Your task to perform on an android device: open app "PUBG MOBILE" Image 0: 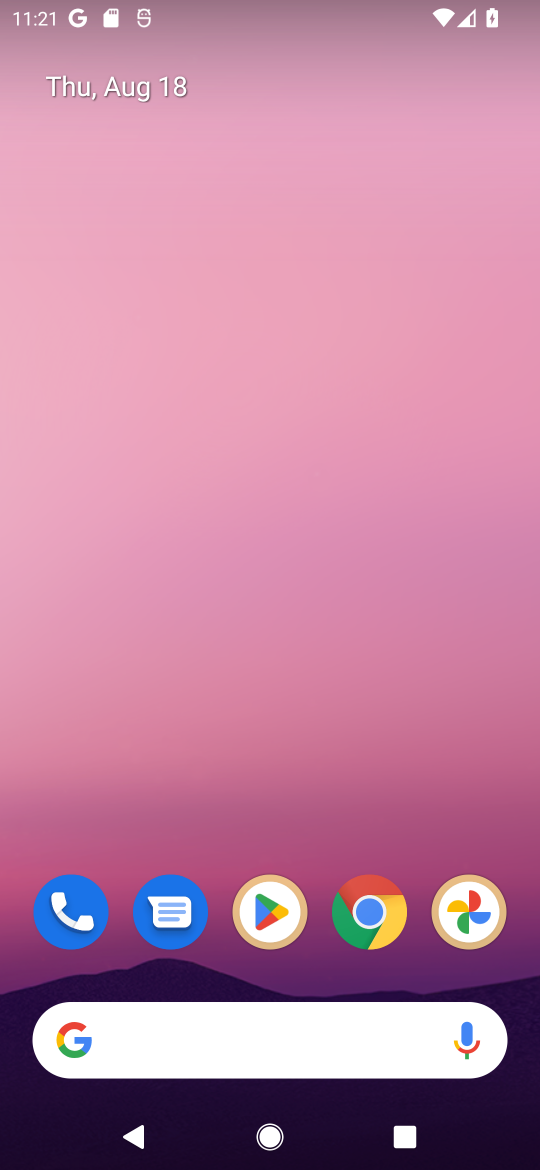
Step 0: click (287, 914)
Your task to perform on an android device: open app "PUBG MOBILE" Image 1: 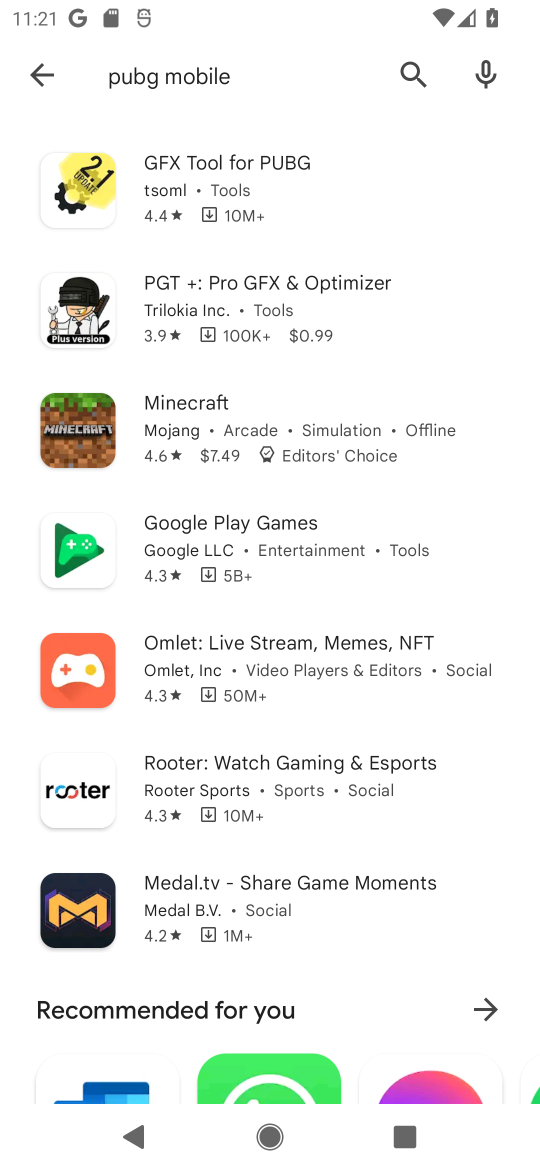
Step 1: click (405, 80)
Your task to perform on an android device: open app "PUBG MOBILE" Image 2: 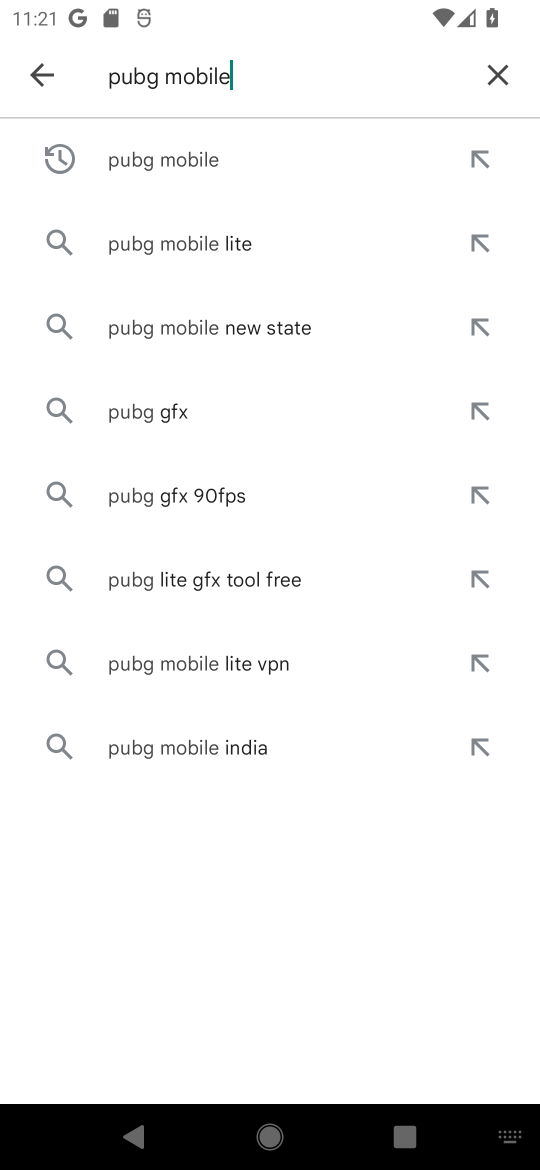
Step 2: click (488, 74)
Your task to perform on an android device: open app "PUBG MOBILE" Image 3: 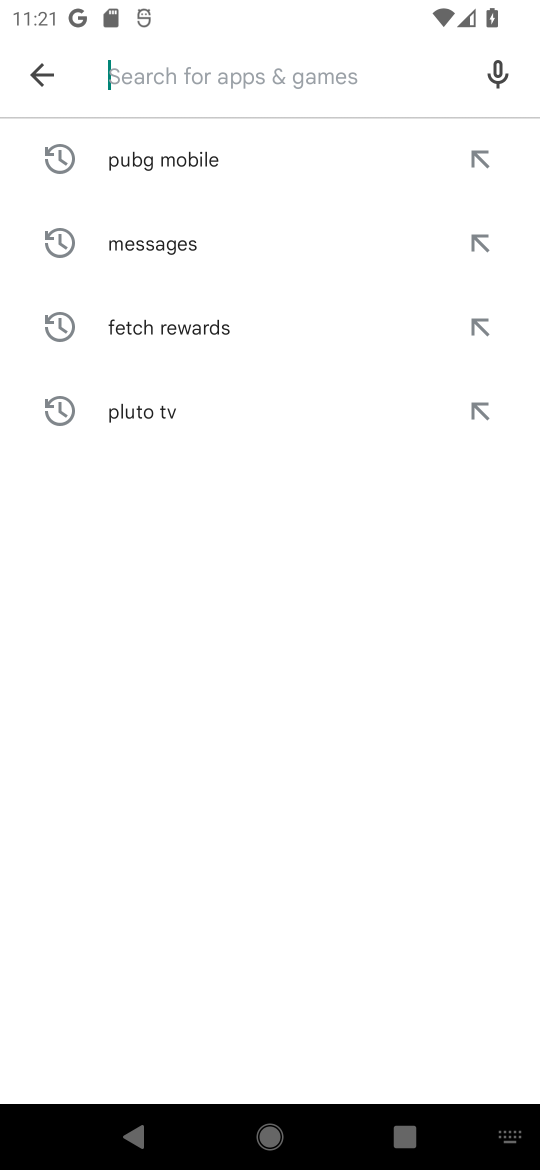
Step 3: click (136, 64)
Your task to perform on an android device: open app "PUBG MOBILE" Image 4: 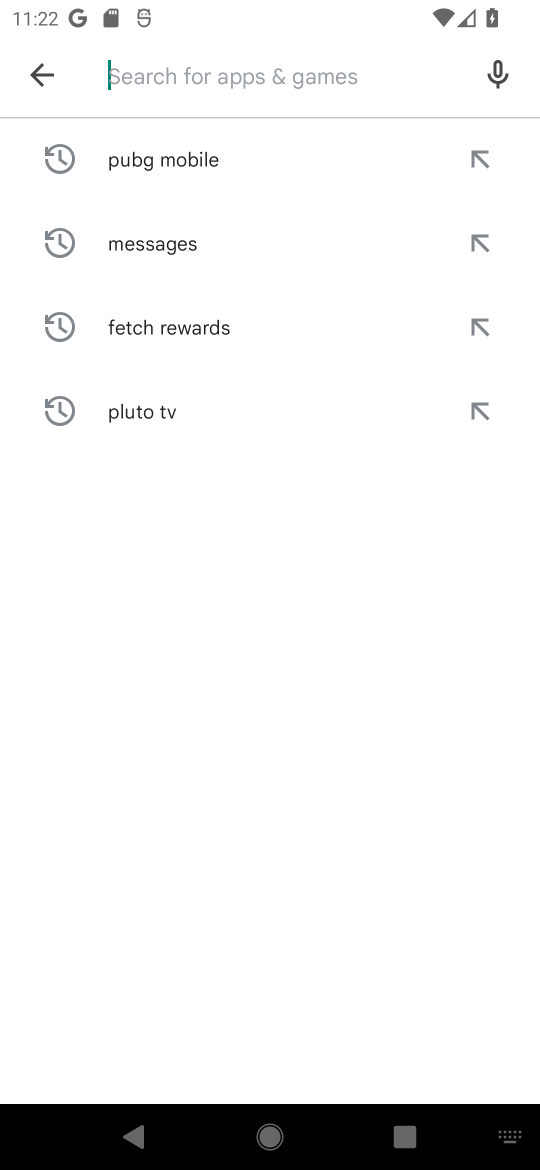
Step 4: type "PUBG MOBILE"
Your task to perform on an android device: open app "PUBG MOBILE" Image 5: 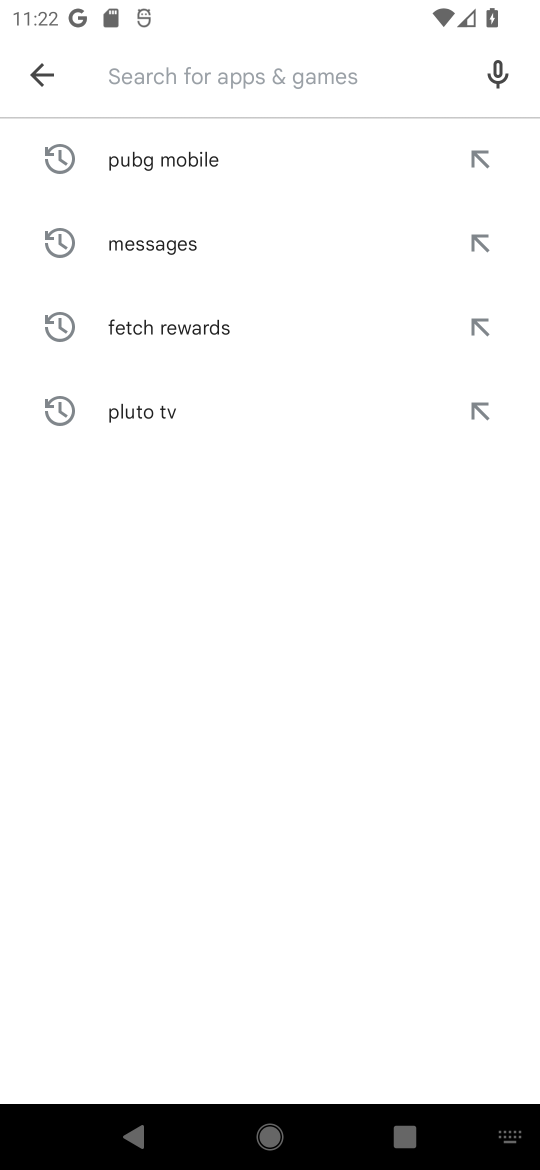
Step 5: click (185, 666)
Your task to perform on an android device: open app "PUBG MOBILE" Image 6: 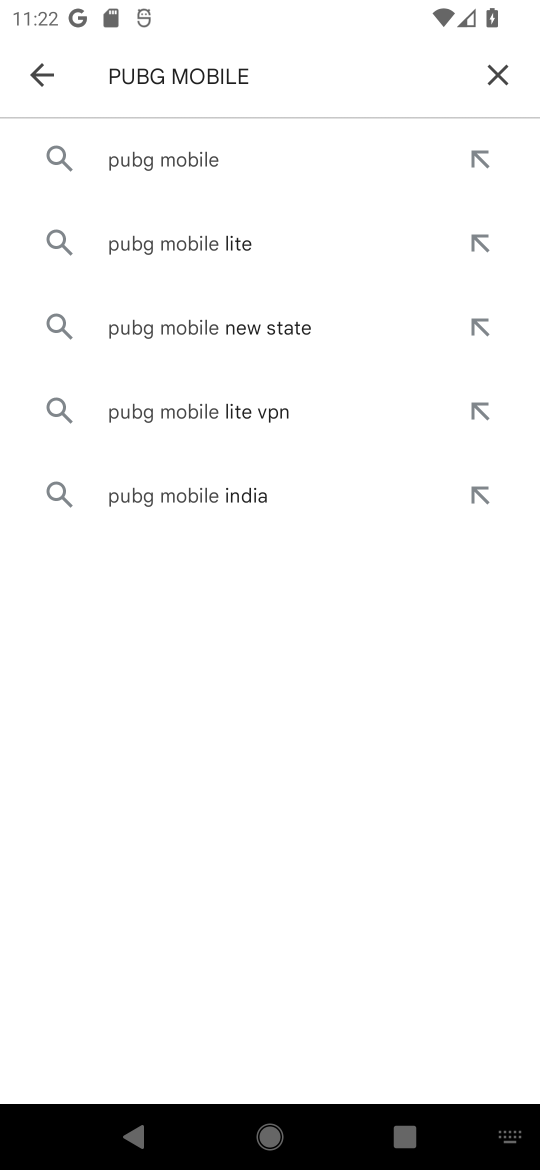
Step 6: click (177, 161)
Your task to perform on an android device: open app "PUBG MOBILE" Image 7: 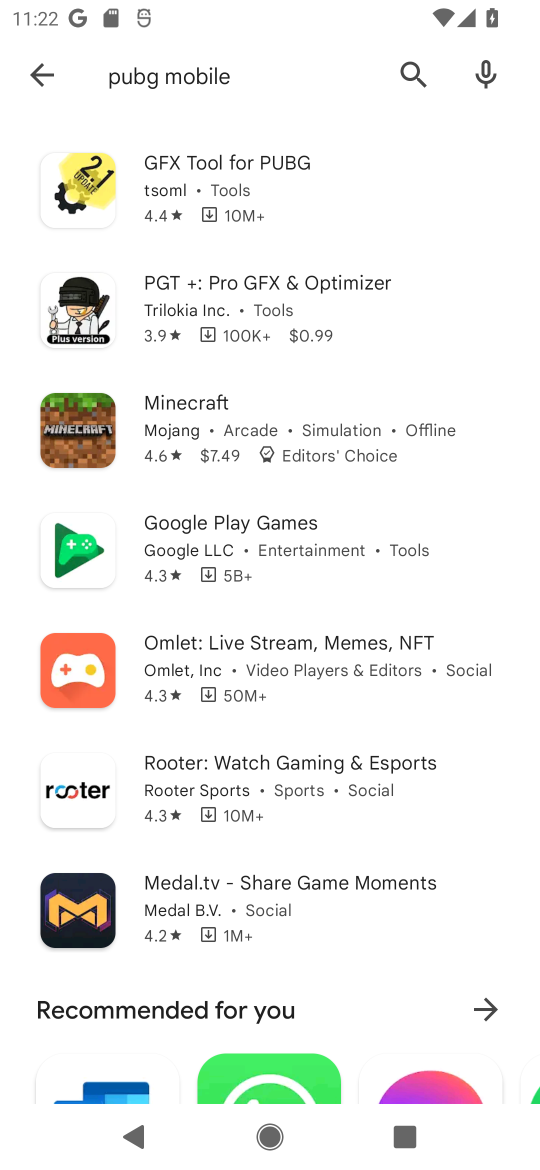
Step 7: task complete